Your task to perform on an android device: Search for Mexican restaurants on Maps Image 0: 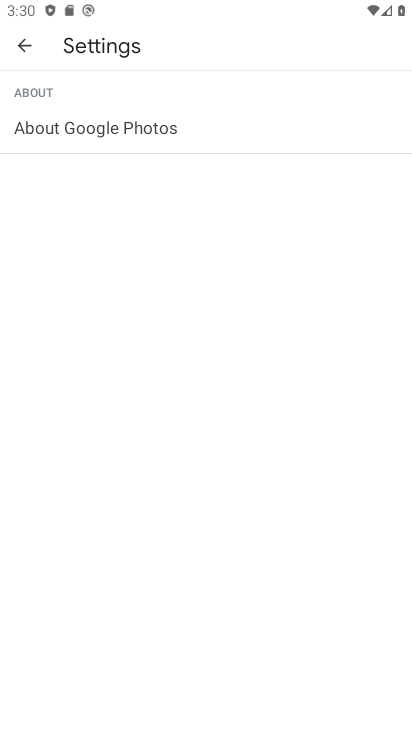
Step 0: press home button
Your task to perform on an android device: Search for Mexican restaurants on Maps Image 1: 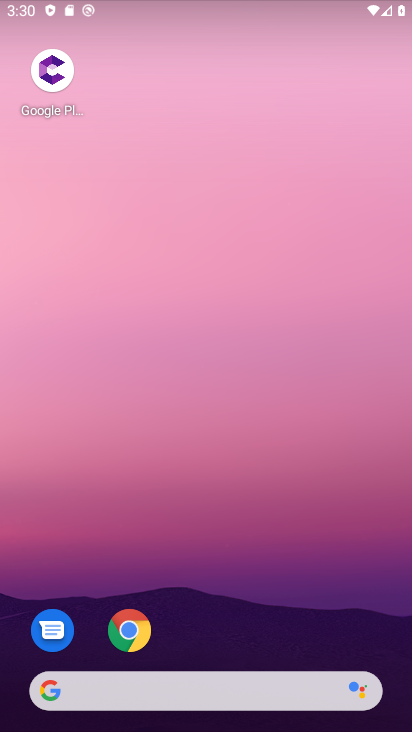
Step 1: drag from (321, 565) to (81, 47)
Your task to perform on an android device: Search for Mexican restaurants on Maps Image 2: 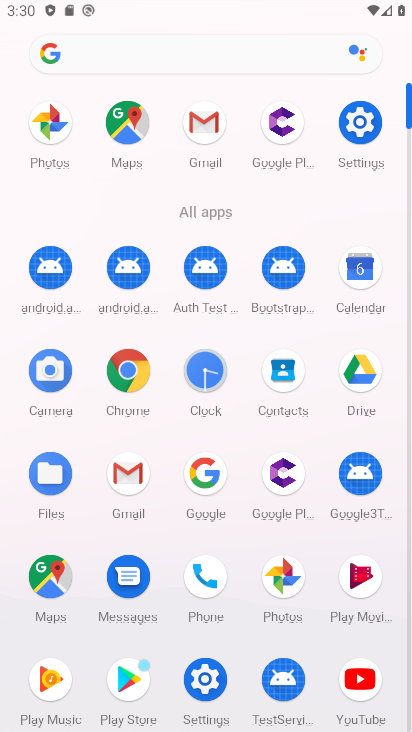
Step 2: click (134, 116)
Your task to perform on an android device: Search for Mexican restaurants on Maps Image 3: 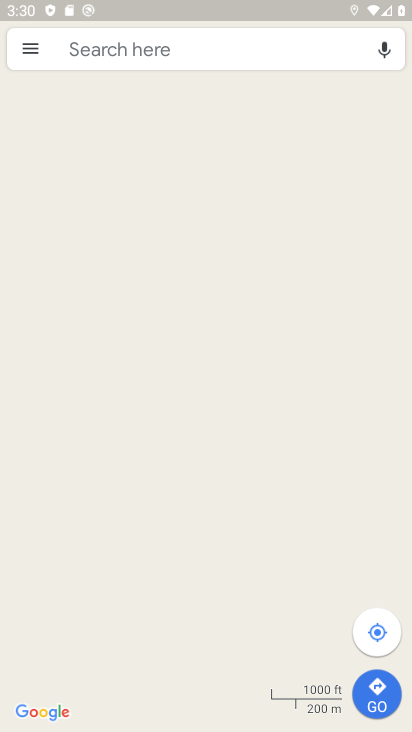
Step 3: click (151, 60)
Your task to perform on an android device: Search for Mexican restaurants on Maps Image 4: 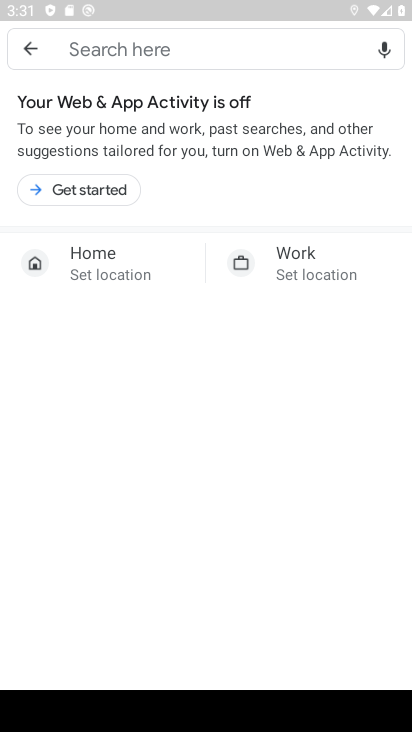
Step 4: click (149, 43)
Your task to perform on an android device: Search for Mexican restaurants on Maps Image 5: 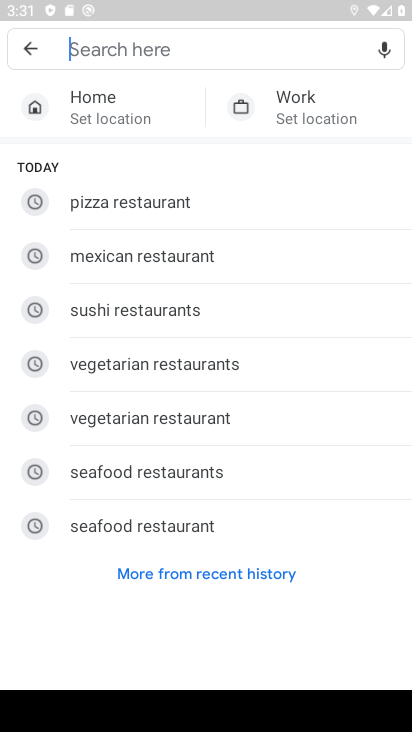
Step 5: click (156, 259)
Your task to perform on an android device: Search for Mexican restaurants on Maps Image 6: 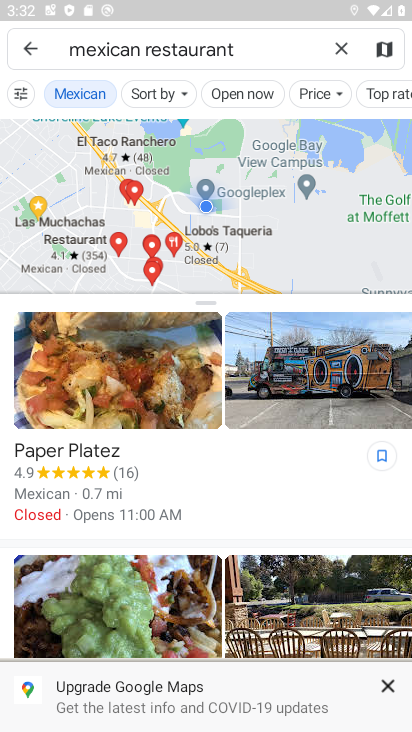
Step 6: task complete